Your task to perform on an android device: Open display settings Image 0: 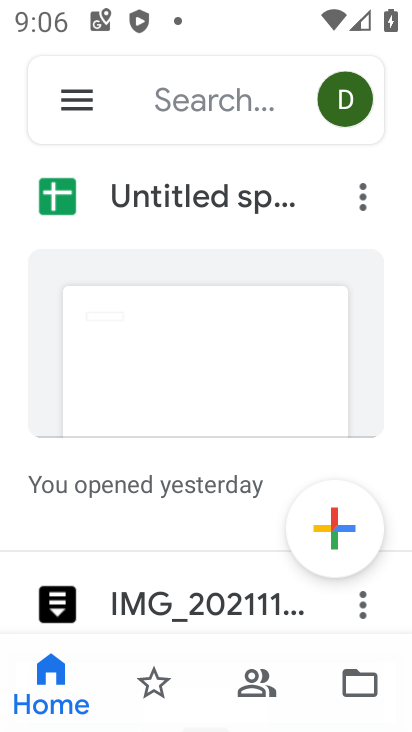
Step 0: press home button
Your task to perform on an android device: Open display settings Image 1: 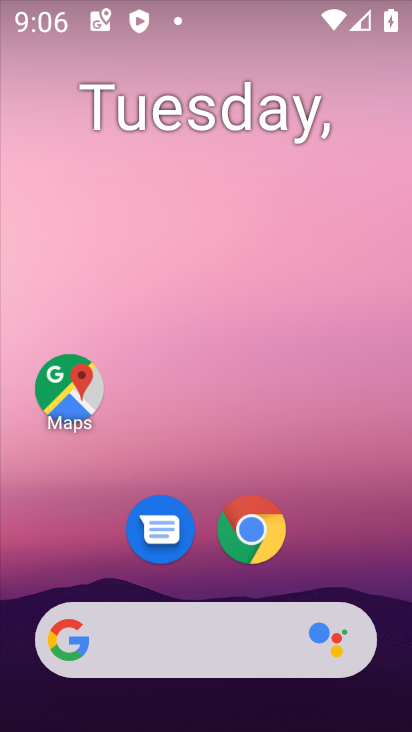
Step 1: drag from (220, 617) to (295, 168)
Your task to perform on an android device: Open display settings Image 2: 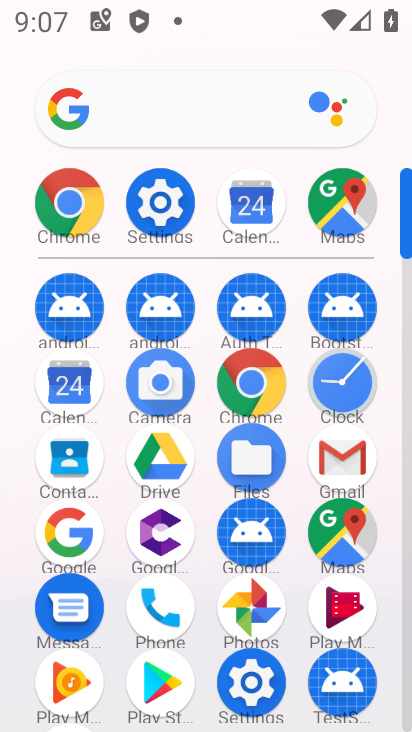
Step 2: click (166, 221)
Your task to perform on an android device: Open display settings Image 3: 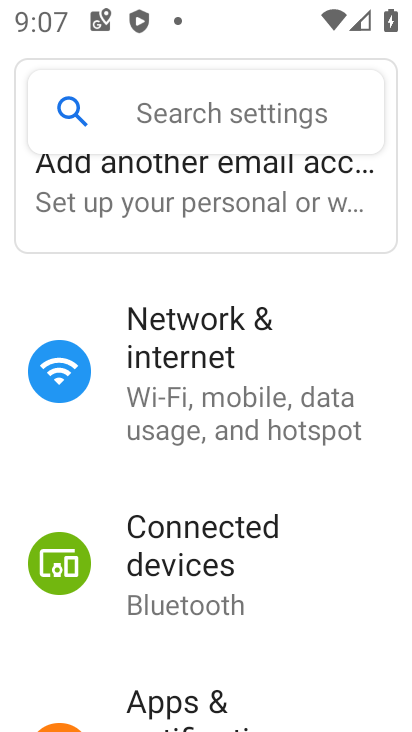
Step 3: drag from (235, 527) to (256, 304)
Your task to perform on an android device: Open display settings Image 4: 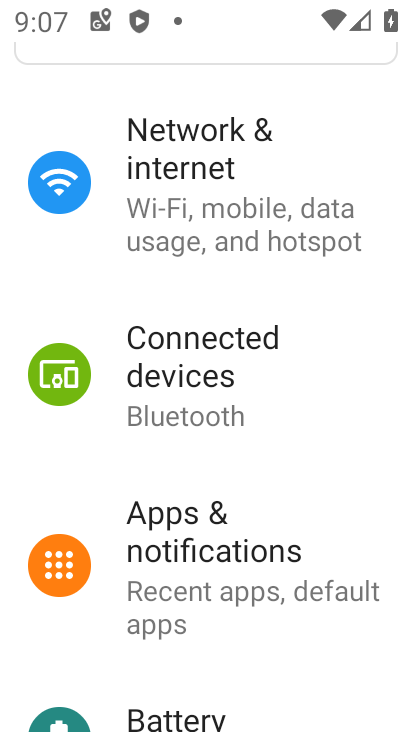
Step 4: drag from (208, 631) to (244, 348)
Your task to perform on an android device: Open display settings Image 5: 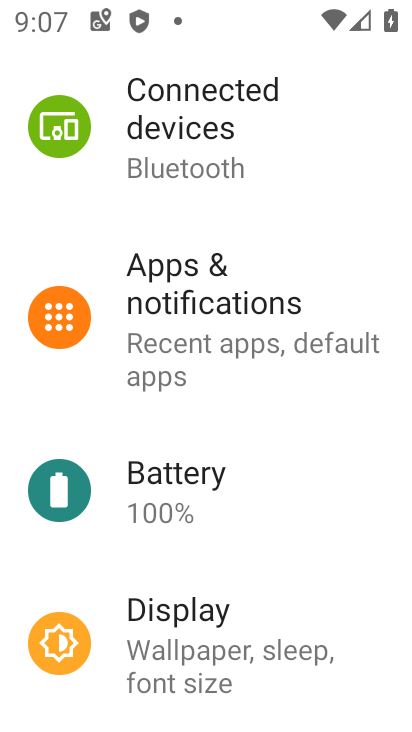
Step 5: click (211, 639)
Your task to perform on an android device: Open display settings Image 6: 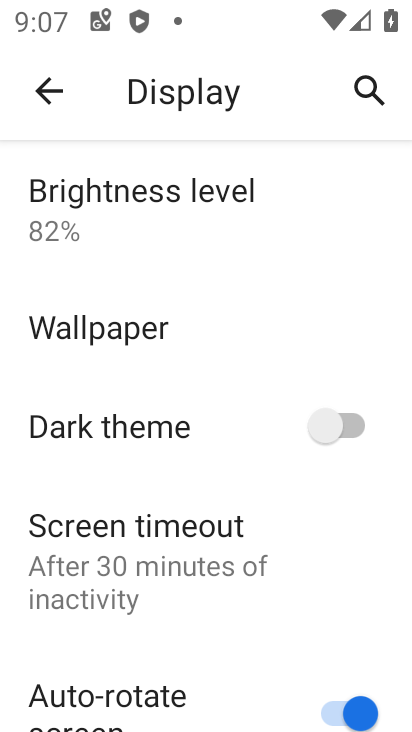
Step 6: task complete